Your task to perform on an android device: Open my contact list Image 0: 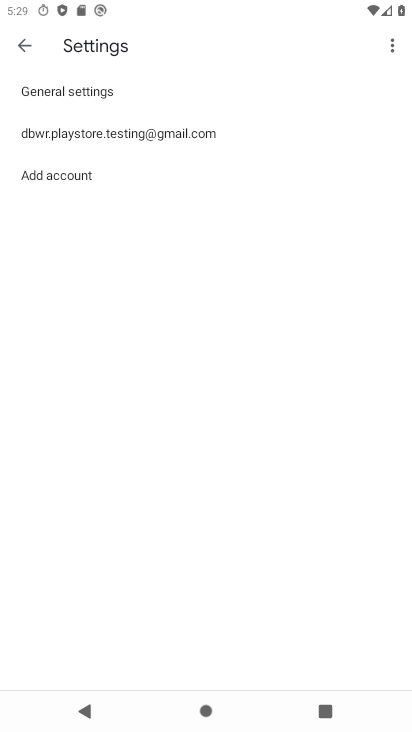
Step 0: press home button
Your task to perform on an android device: Open my contact list Image 1: 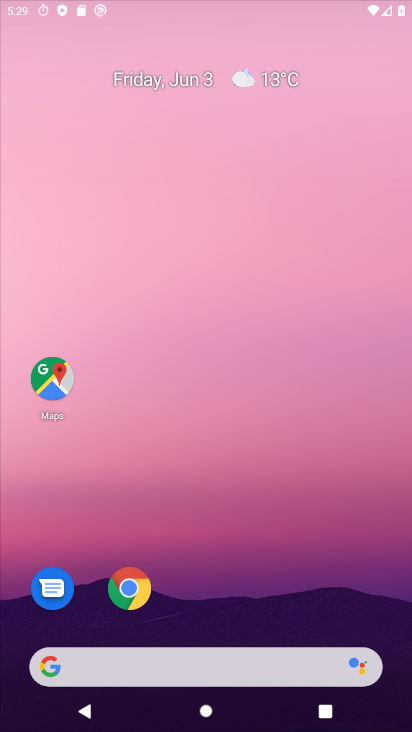
Step 1: drag from (218, 624) to (235, 206)
Your task to perform on an android device: Open my contact list Image 2: 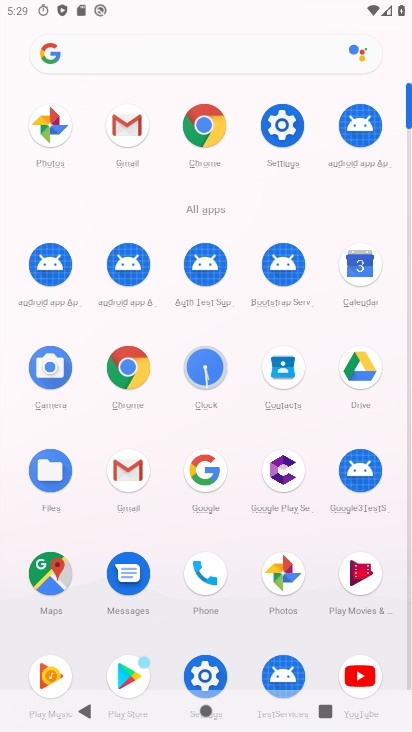
Step 2: click (292, 381)
Your task to perform on an android device: Open my contact list Image 3: 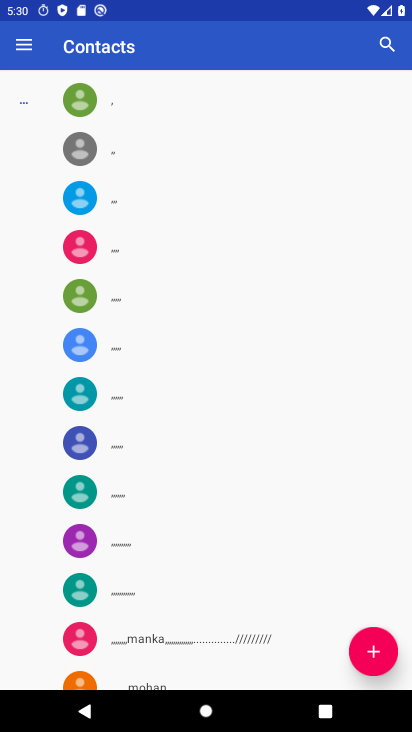
Step 3: task complete